Your task to perform on an android device: Open Google Maps and go to "Timeline" Image 0: 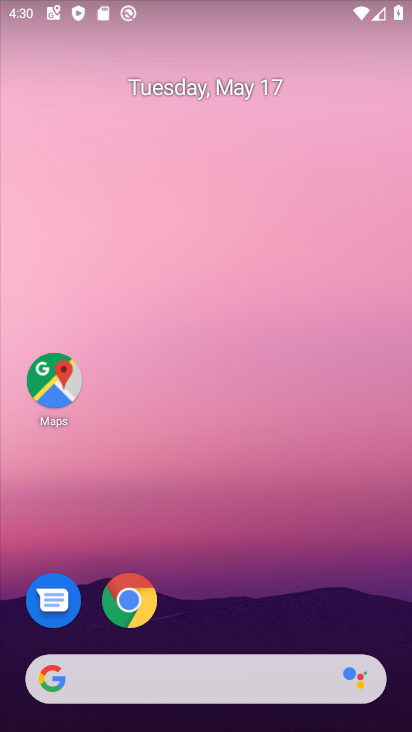
Step 0: click (59, 378)
Your task to perform on an android device: Open Google Maps and go to "Timeline" Image 1: 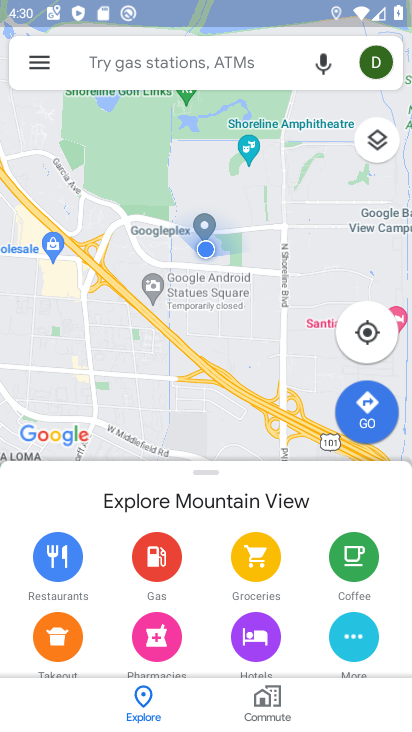
Step 1: click (39, 70)
Your task to perform on an android device: Open Google Maps and go to "Timeline" Image 2: 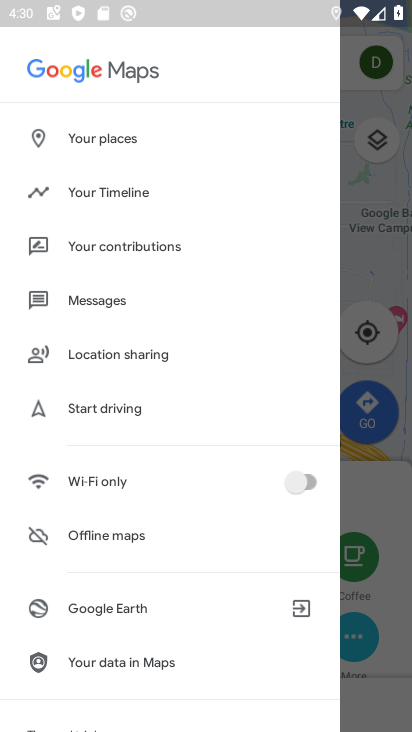
Step 2: click (114, 197)
Your task to perform on an android device: Open Google Maps and go to "Timeline" Image 3: 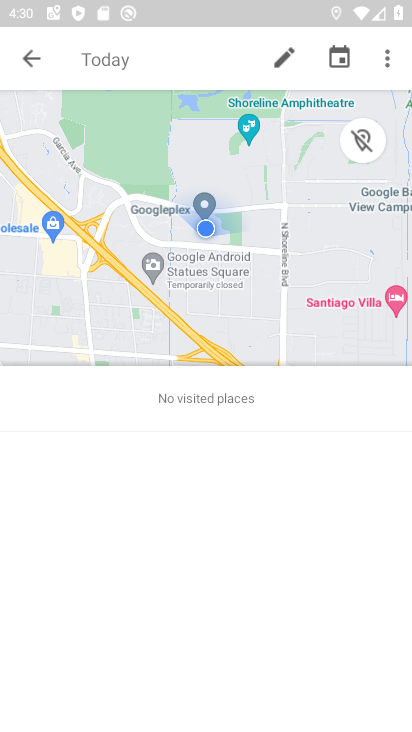
Step 3: task complete